Your task to perform on an android device: Go to location settings Image 0: 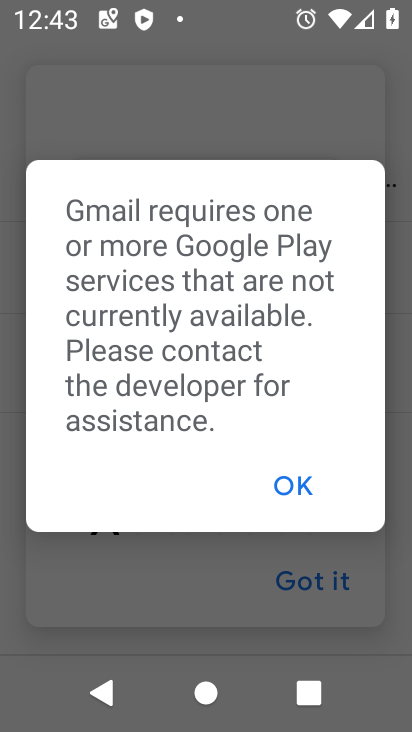
Step 0: press home button
Your task to perform on an android device: Go to location settings Image 1: 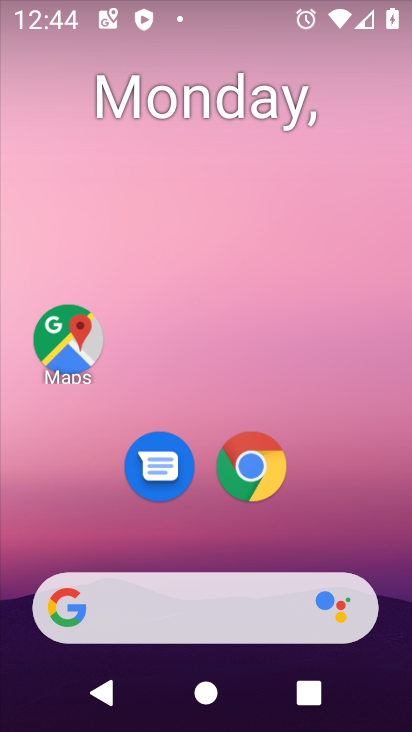
Step 1: drag from (393, 609) to (331, 1)
Your task to perform on an android device: Go to location settings Image 2: 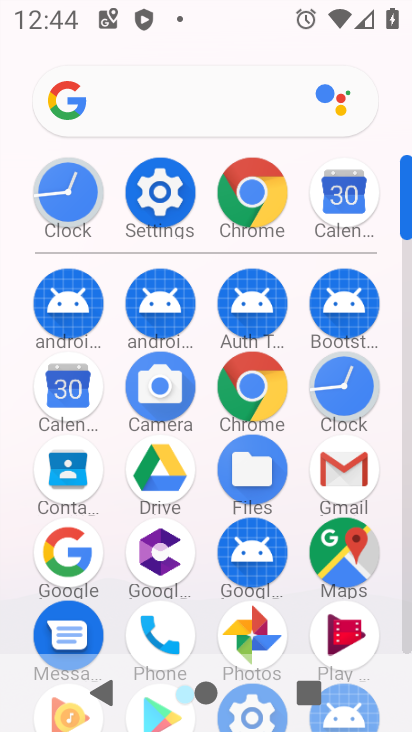
Step 2: click (166, 205)
Your task to perform on an android device: Go to location settings Image 3: 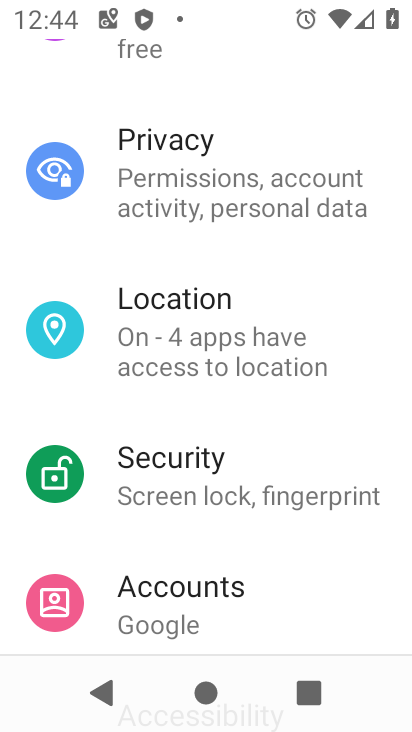
Step 3: click (267, 319)
Your task to perform on an android device: Go to location settings Image 4: 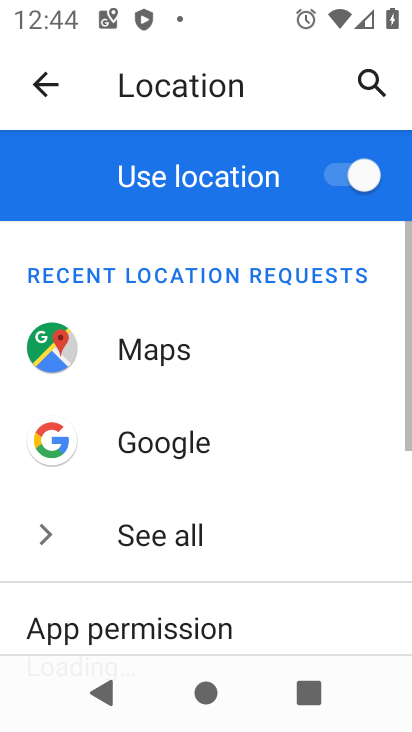
Step 4: task complete